Your task to perform on an android device: Show me popular videos on Youtube Image 0: 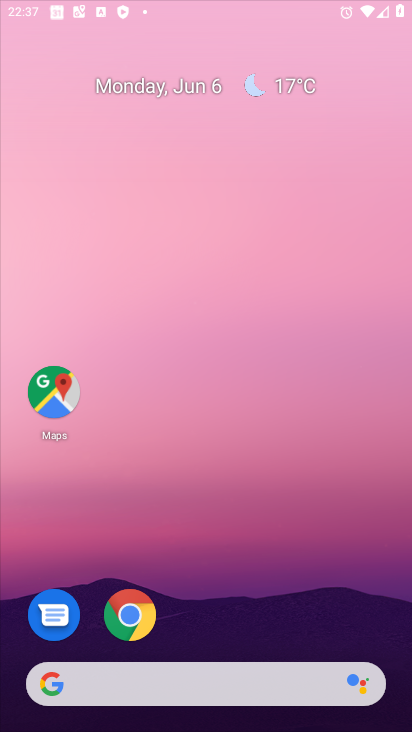
Step 0: drag from (380, 631) to (303, 164)
Your task to perform on an android device: Show me popular videos on Youtube Image 1: 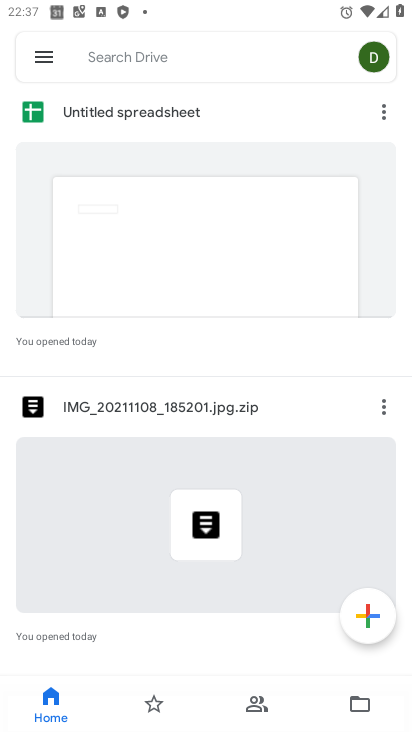
Step 1: press home button
Your task to perform on an android device: Show me popular videos on Youtube Image 2: 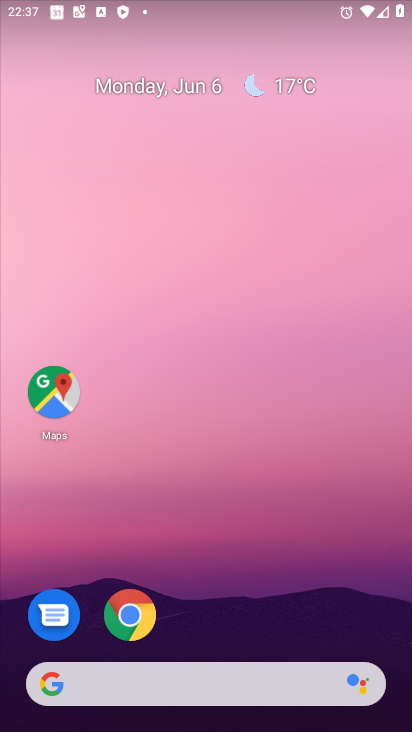
Step 2: drag from (396, 714) to (331, 74)
Your task to perform on an android device: Show me popular videos on Youtube Image 3: 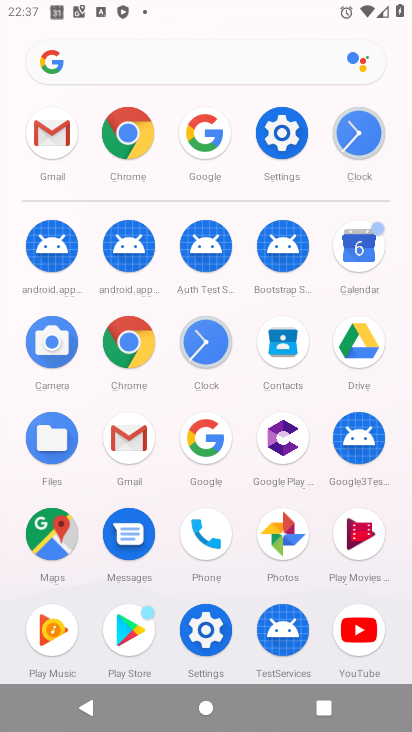
Step 3: click (362, 619)
Your task to perform on an android device: Show me popular videos on Youtube Image 4: 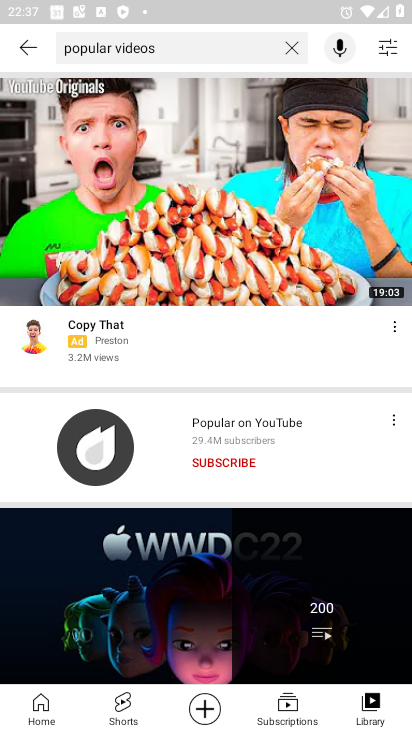
Step 4: task complete